Your task to perform on an android device: toggle data saver in the chrome app Image 0: 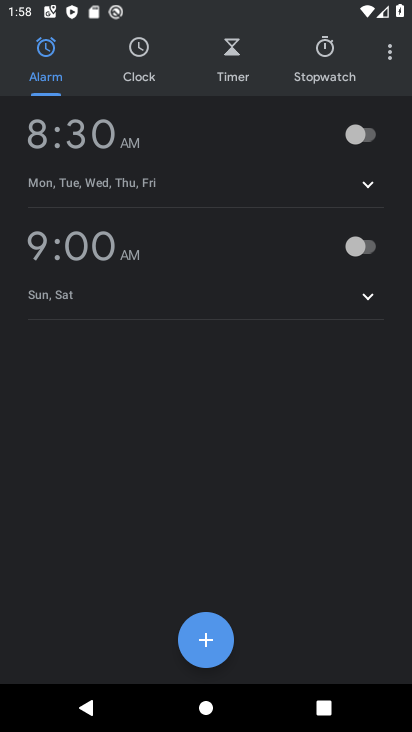
Step 0: press home button
Your task to perform on an android device: toggle data saver in the chrome app Image 1: 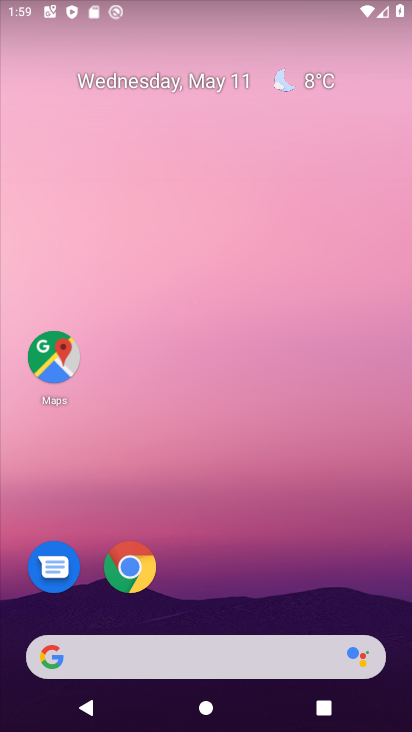
Step 1: click (142, 574)
Your task to perform on an android device: toggle data saver in the chrome app Image 2: 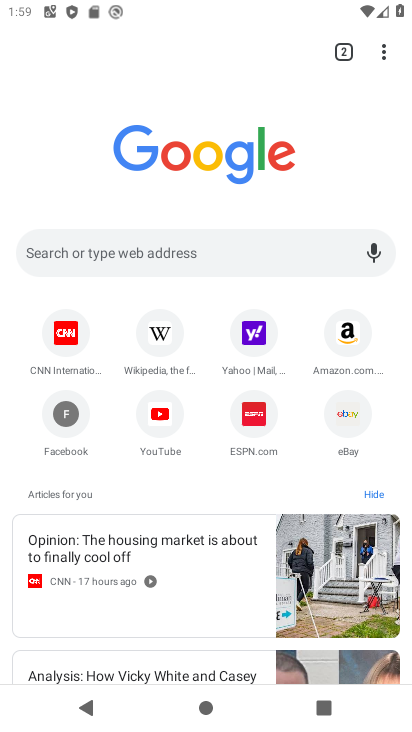
Step 2: click (379, 56)
Your task to perform on an android device: toggle data saver in the chrome app Image 3: 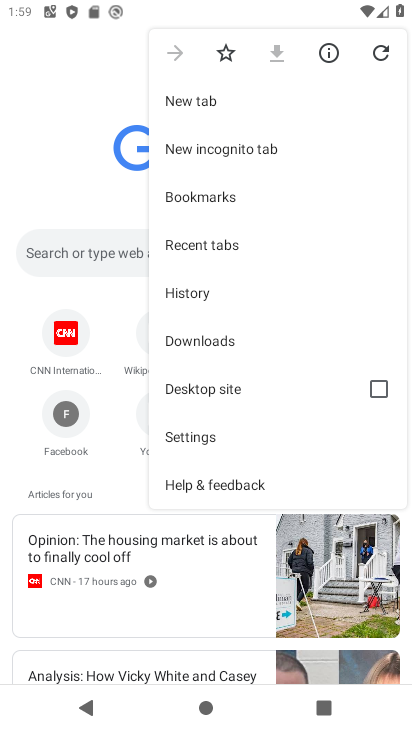
Step 3: click (220, 433)
Your task to perform on an android device: toggle data saver in the chrome app Image 4: 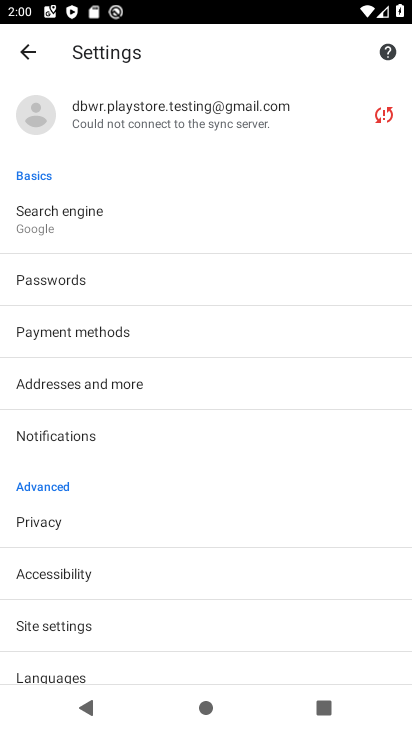
Step 4: drag from (234, 583) to (181, 405)
Your task to perform on an android device: toggle data saver in the chrome app Image 5: 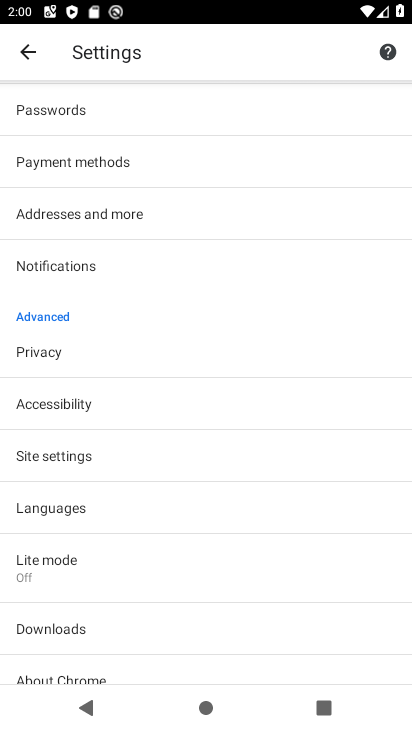
Step 5: click (45, 565)
Your task to perform on an android device: toggle data saver in the chrome app Image 6: 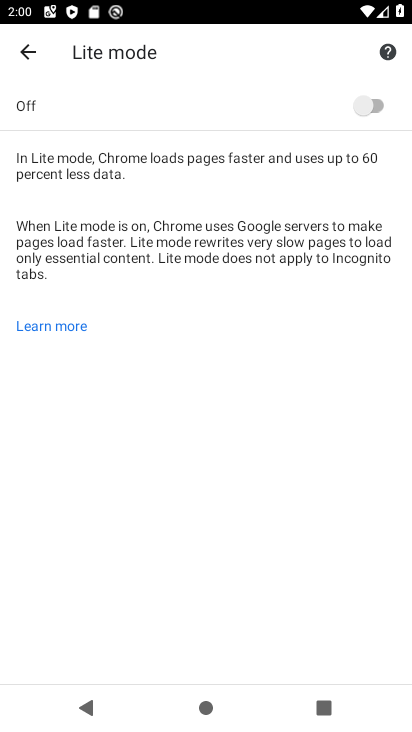
Step 6: click (363, 100)
Your task to perform on an android device: toggle data saver in the chrome app Image 7: 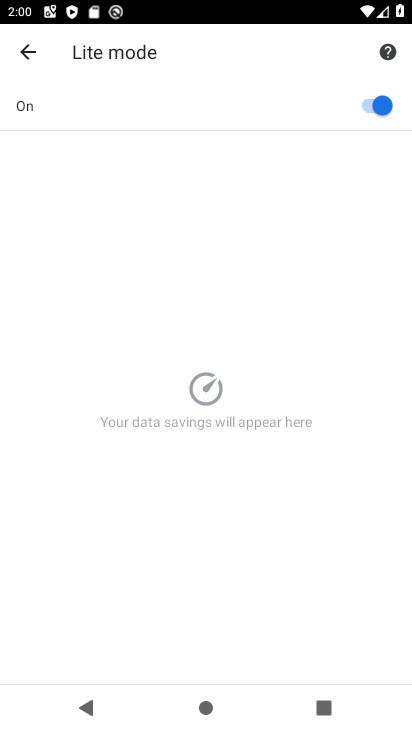
Step 7: task complete